Your task to perform on an android device: Search for pizza restaurants on Maps Image 0: 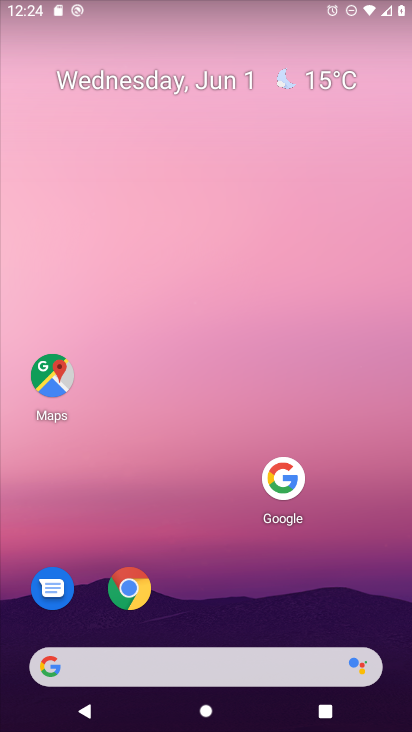
Step 0: press home button
Your task to perform on an android device: Search for pizza restaurants on Maps Image 1: 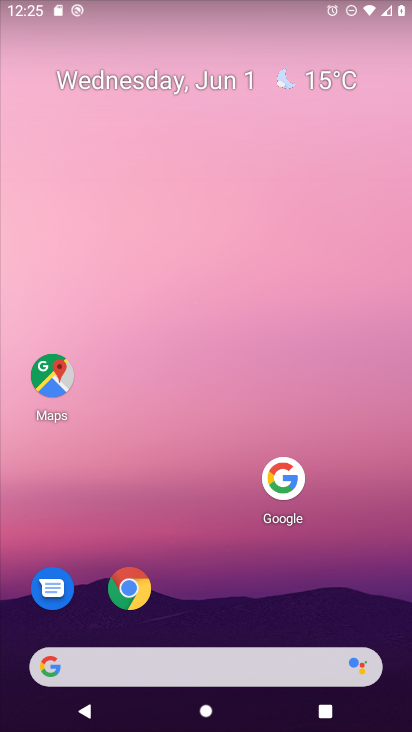
Step 1: click (52, 372)
Your task to perform on an android device: Search for pizza restaurants on Maps Image 2: 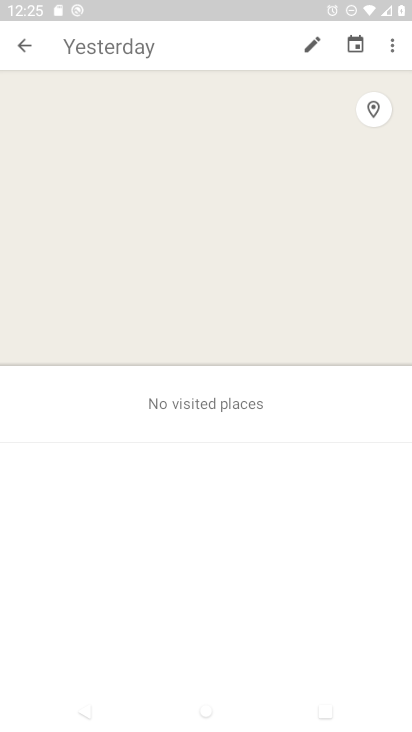
Step 2: click (26, 44)
Your task to perform on an android device: Search for pizza restaurants on Maps Image 3: 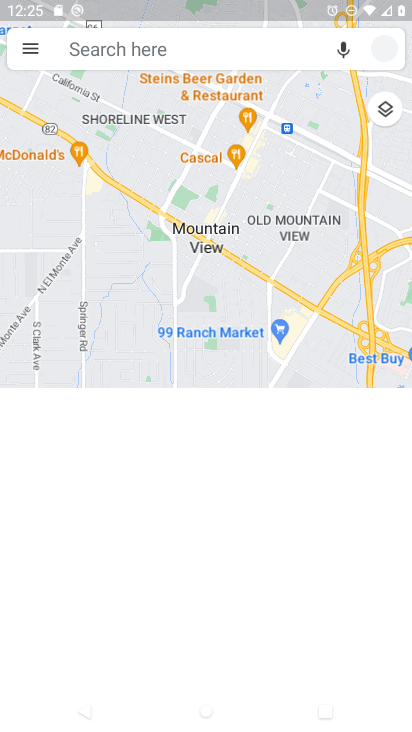
Step 3: click (121, 47)
Your task to perform on an android device: Search for pizza restaurants on Maps Image 4: 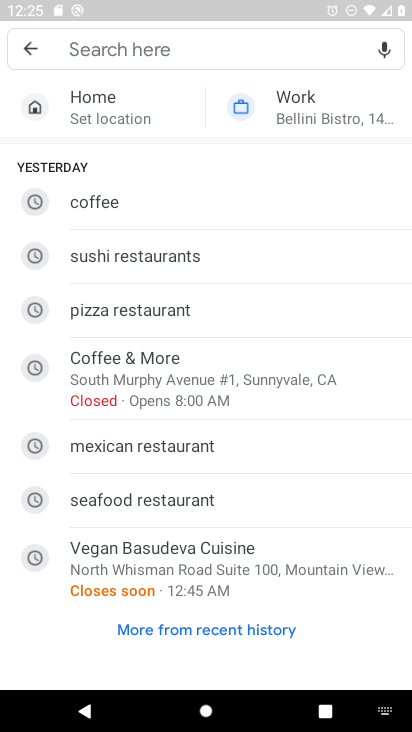
Step 4: click (151, 307)
Your task to perform on an android device: Search for pizza restaurants on Maps Image 5: 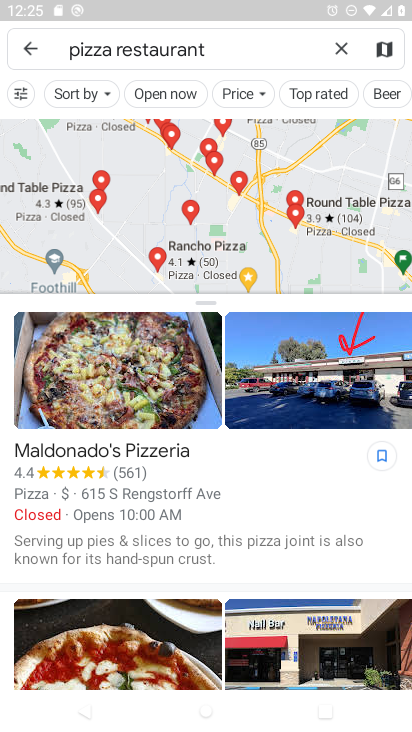
Step 5: task complete